Your task to perform on an android device: turn pop-ups on in chrome Image 0: 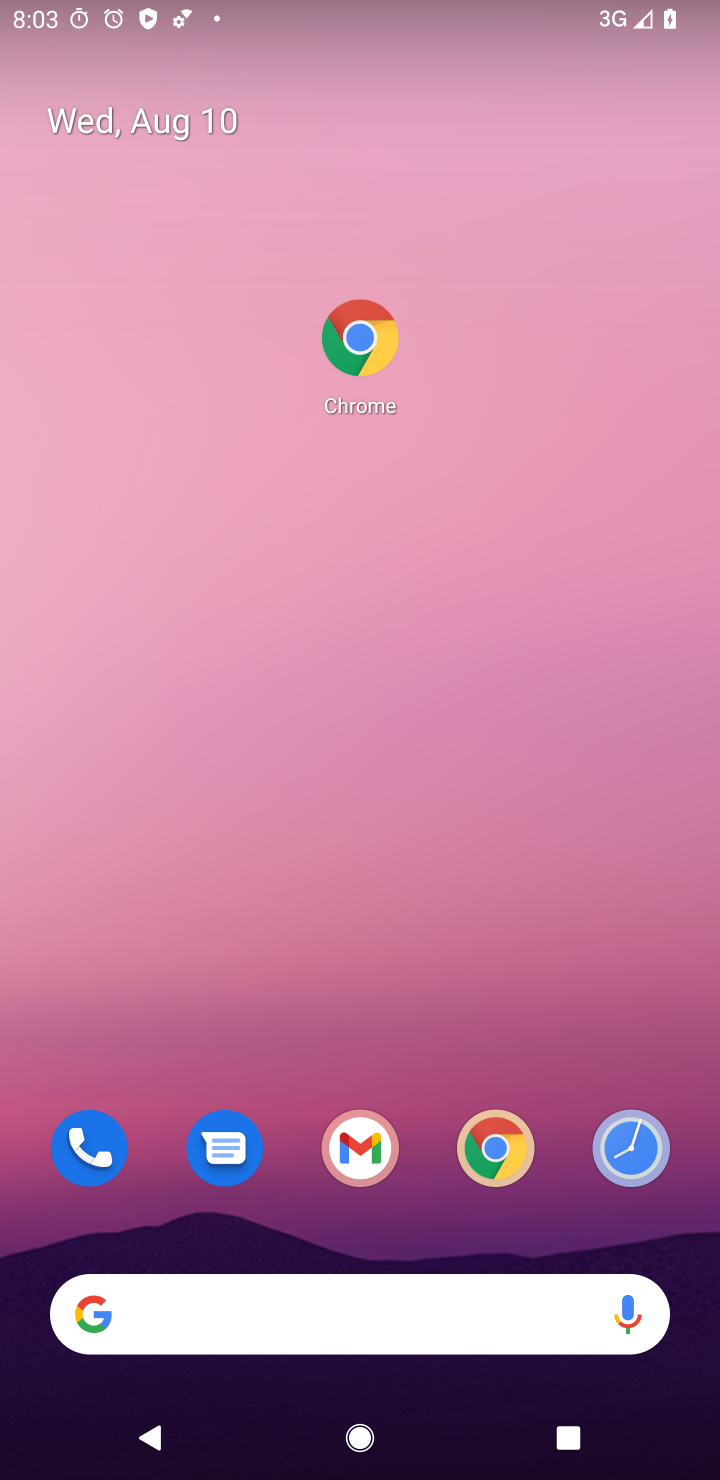
Step 0: click (499, 1166)
Your task to perform on an android device: turn pop-ups on in chrome Image 1: 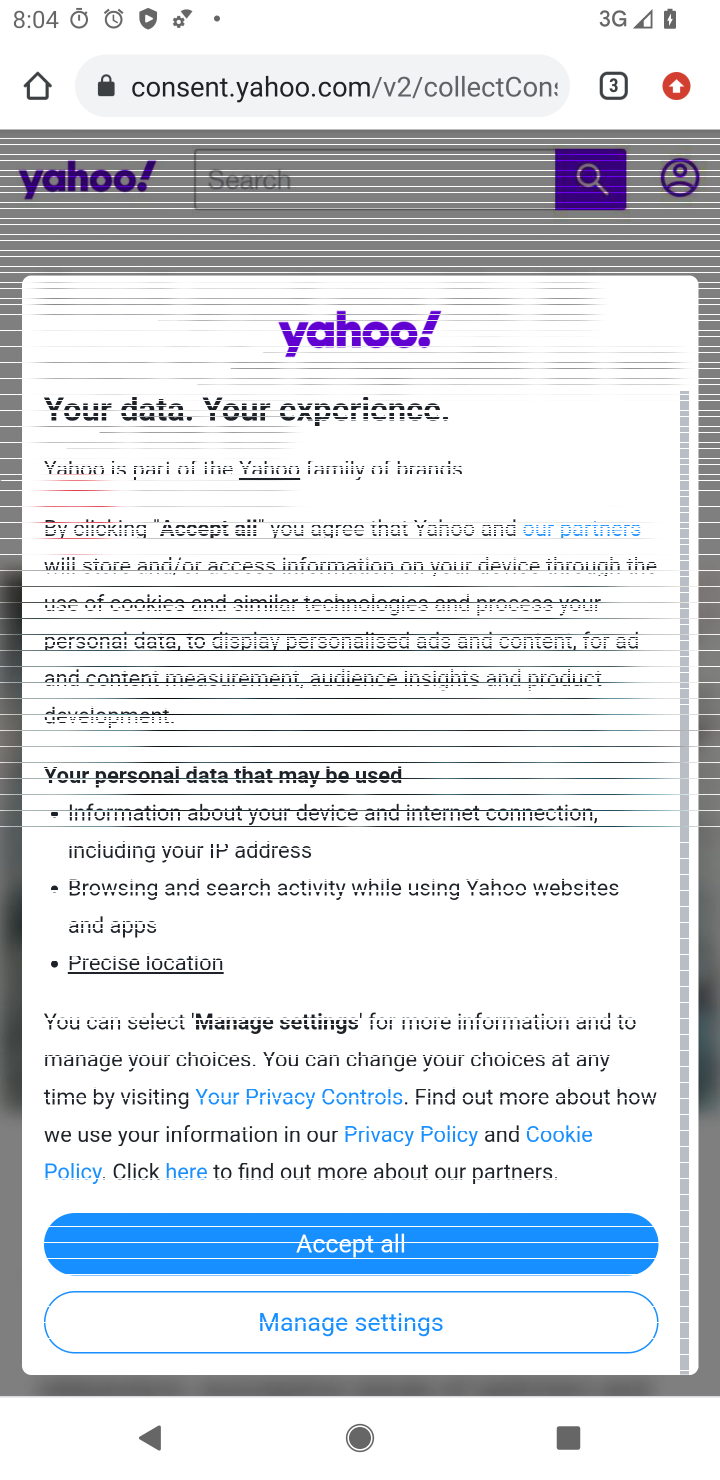
Step 1: click (672, 77)
Your task to perform on an android device: turn pop-ups on in chrome Image 2: 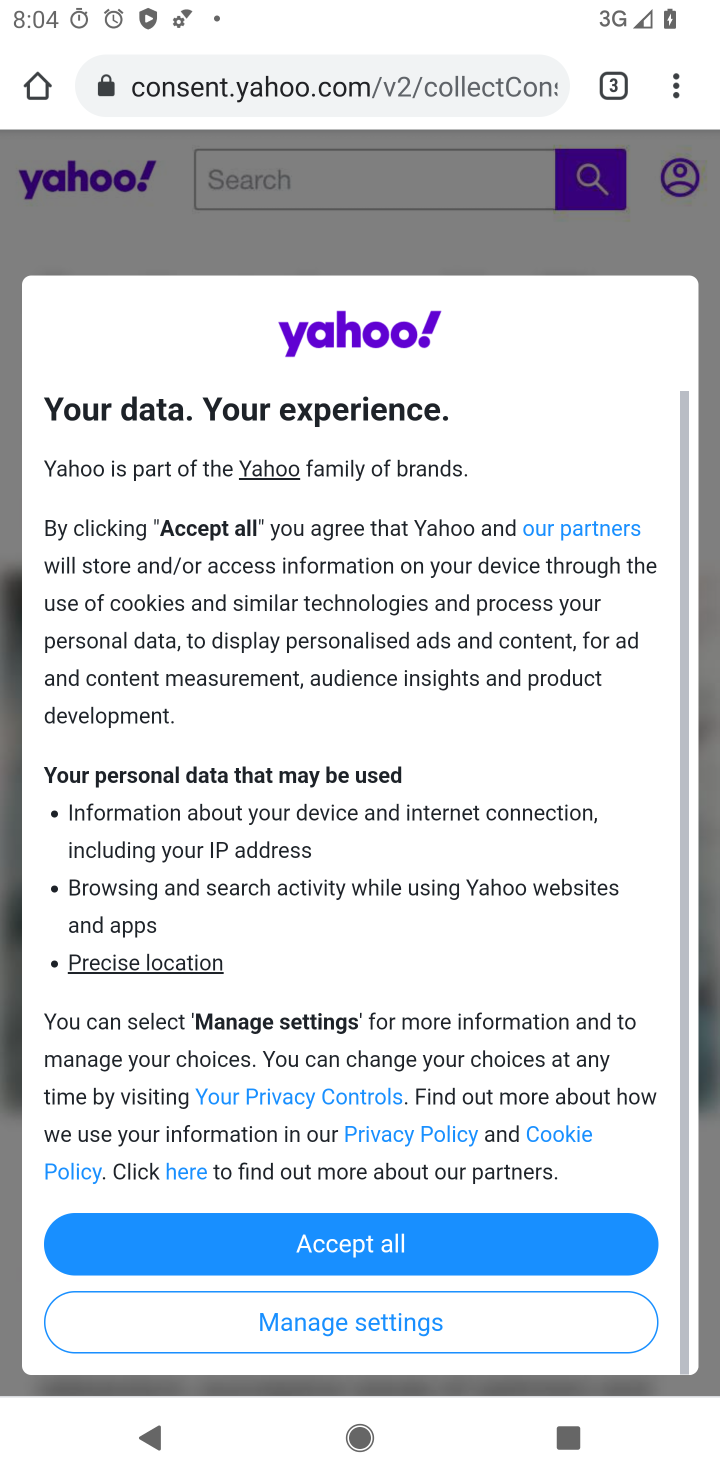
Step 2: click (672, 77)
Your task to perform on an android device: turn pop-ups on in chrome Image 3: 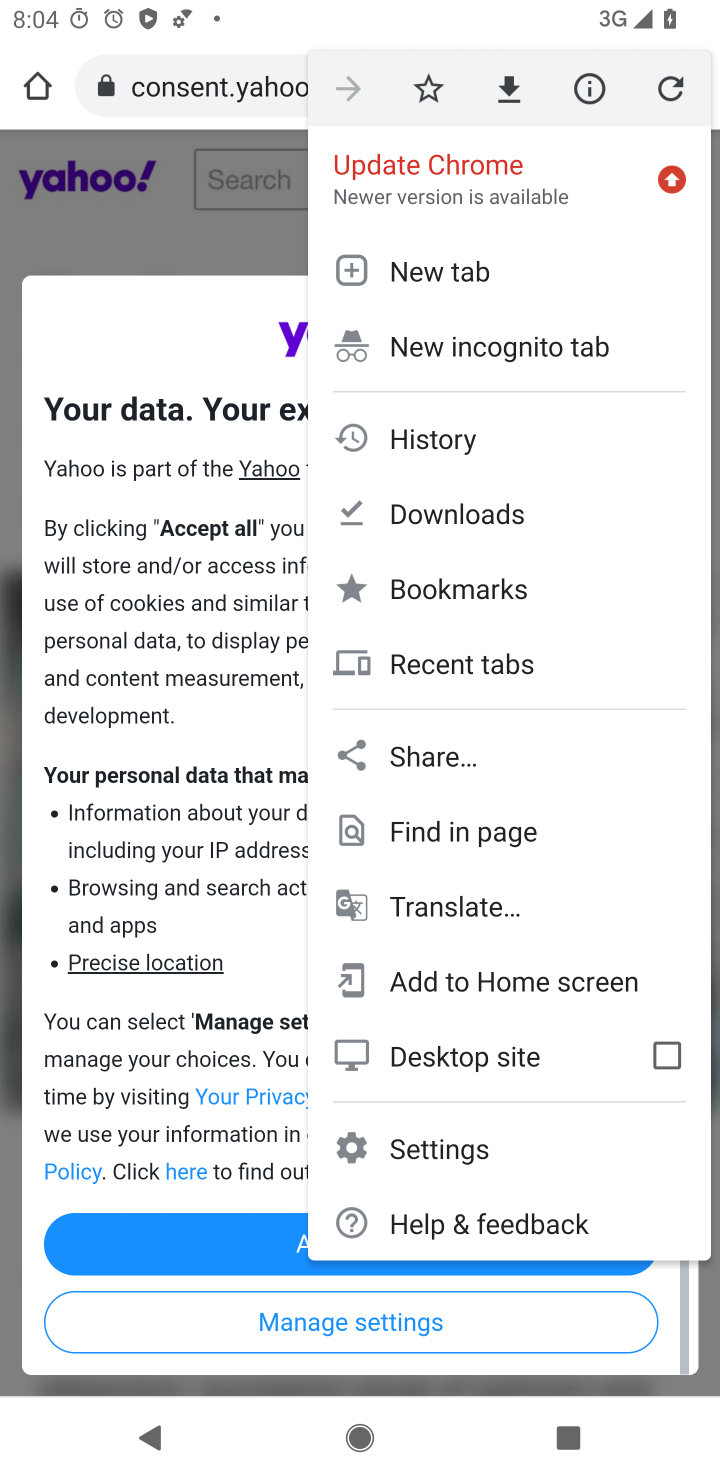
Step 3: click (448, 1138)
Your task to perform on an android device: turn pop-ups on in chrome Image 4: 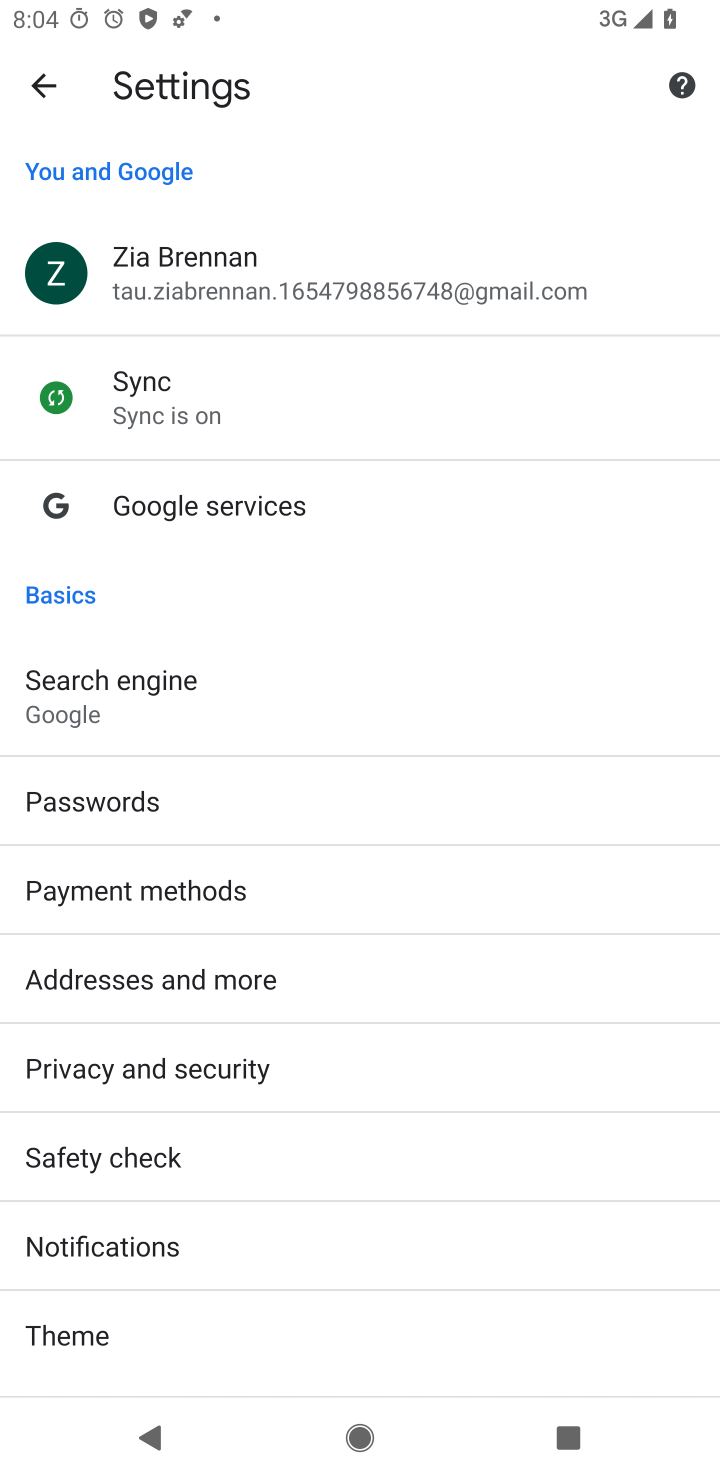
Step 4: drag from (310, 1146) to (312, 479)
Your task to perform on an android device: turn pop-ups on in chrome Image 5: 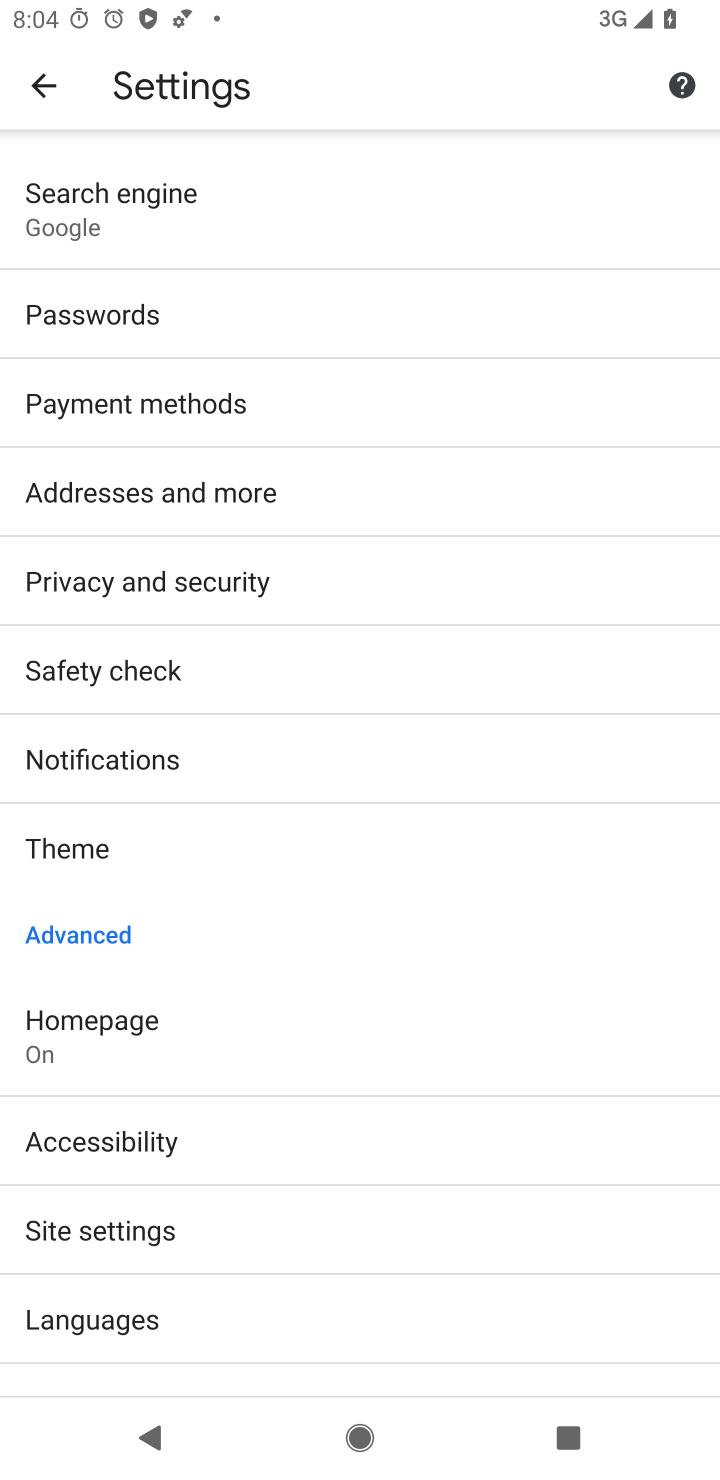
Step 5: click (147, 1229)
Your task to perform on an android device: turn pop-ups on in chrome Image 6: 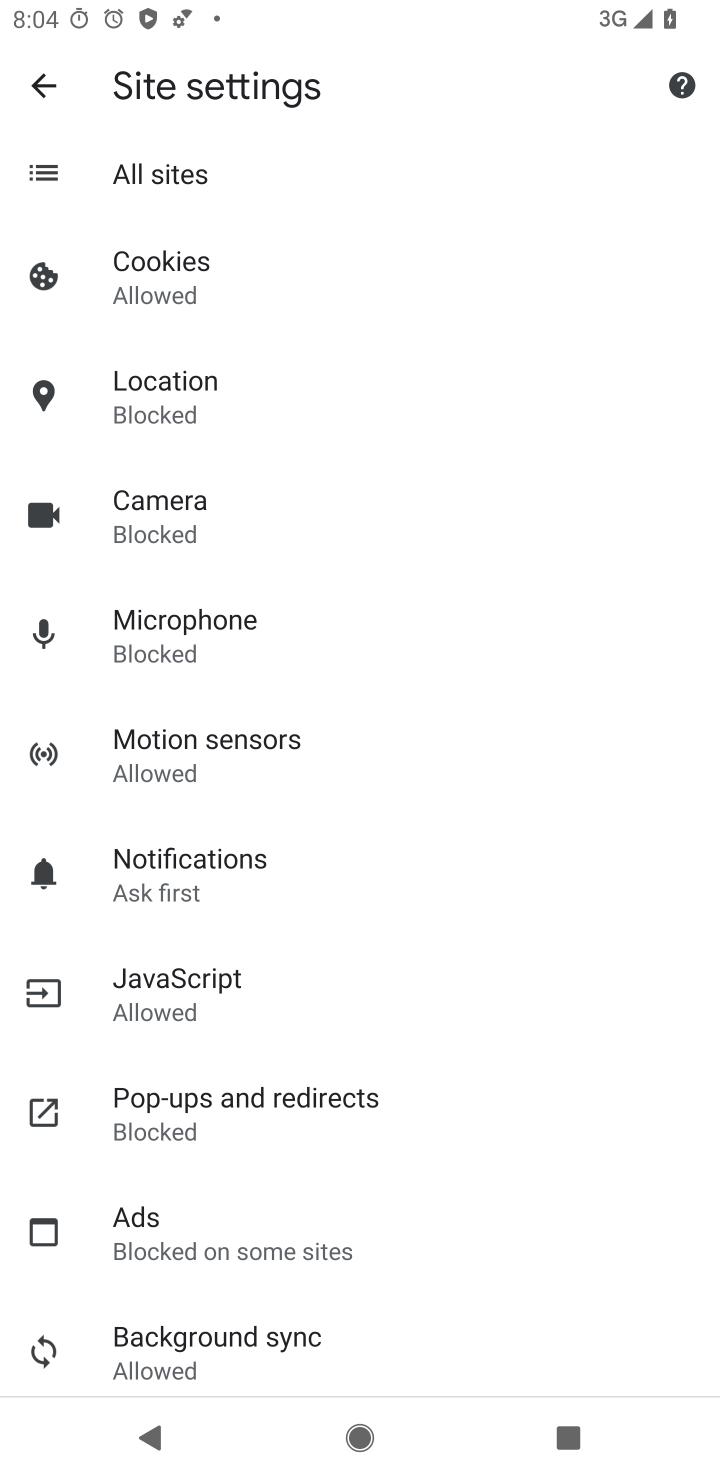
Step 6: click (210, 1092)
Your task to perform on an android device: turn pop-ups on in chrome Image 7: 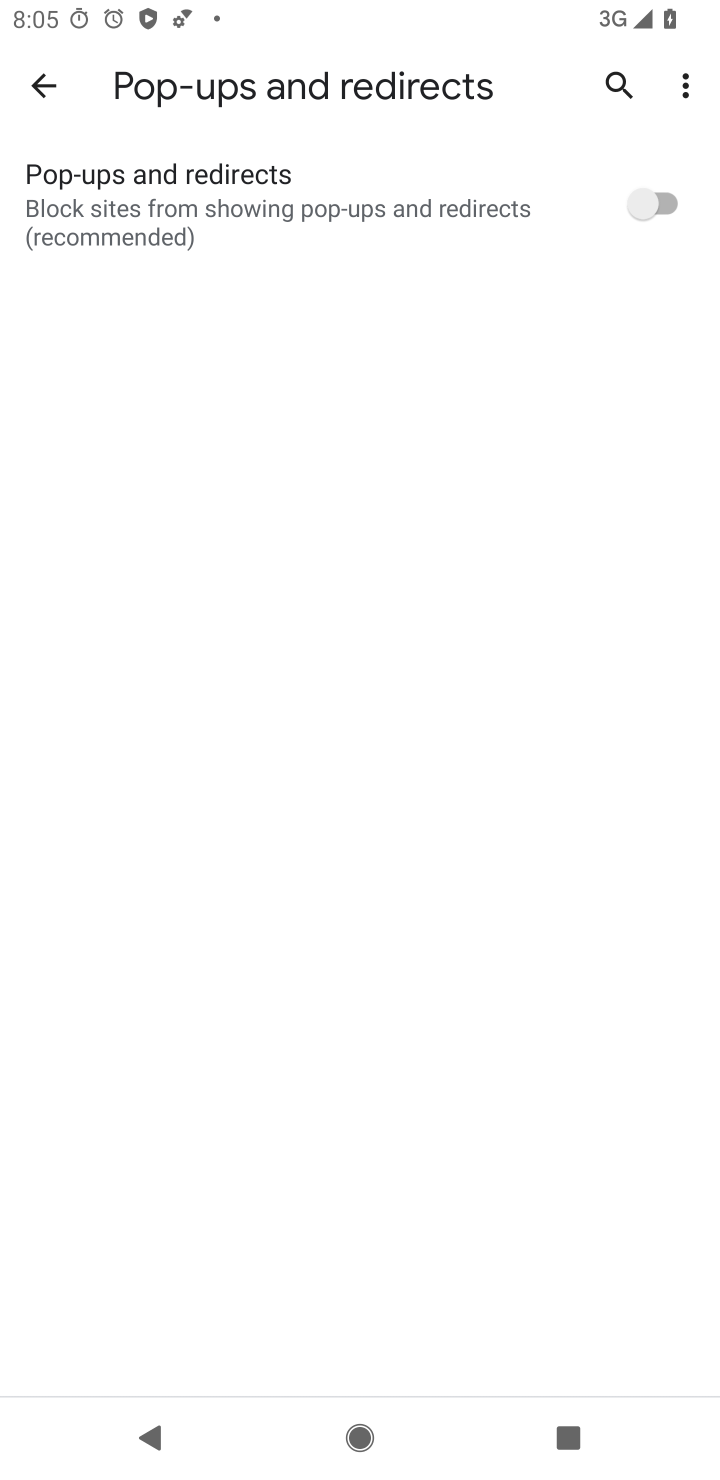
Step 7: click (641, 202)
Your task to perform on an android device: turn pop-ups on in chrome Image 8: 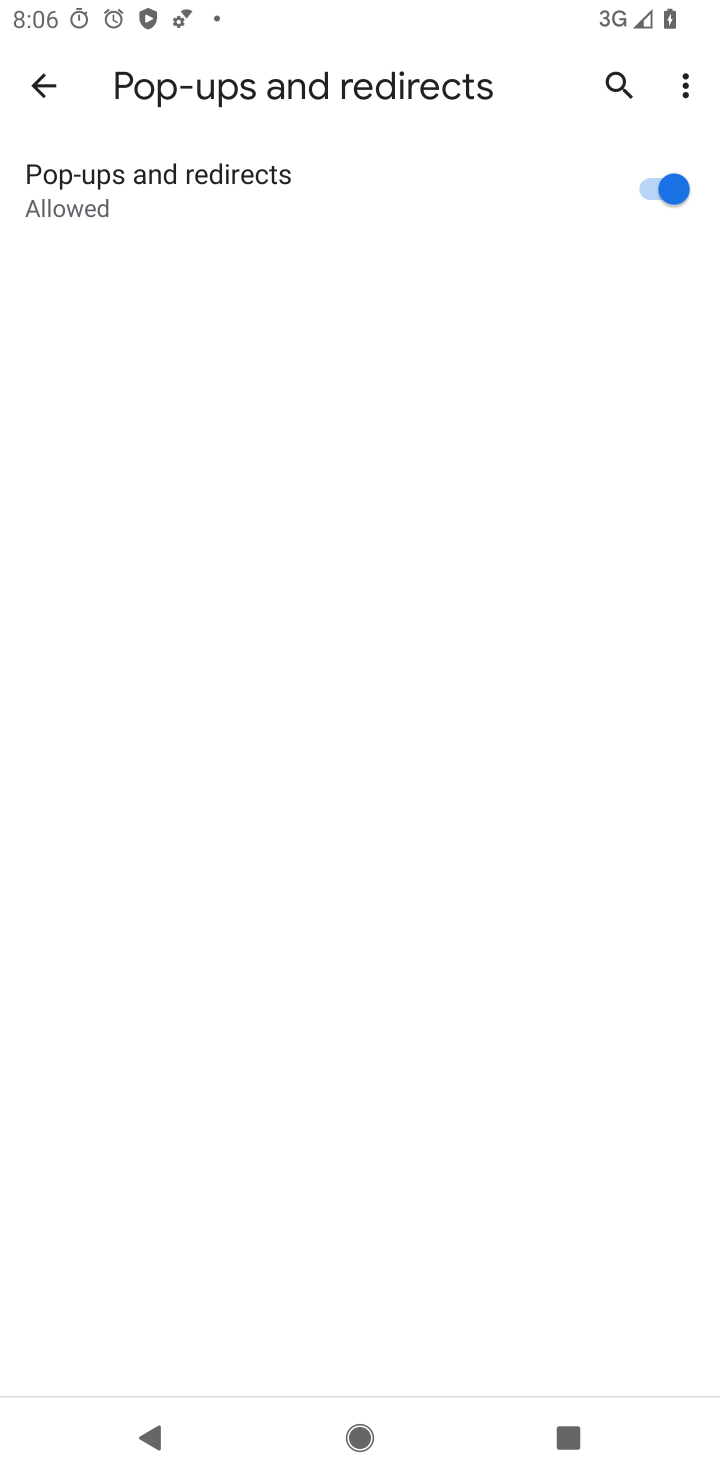
Step 8: task complete